Your task to perform on an android device: Open battery settings Image 0: 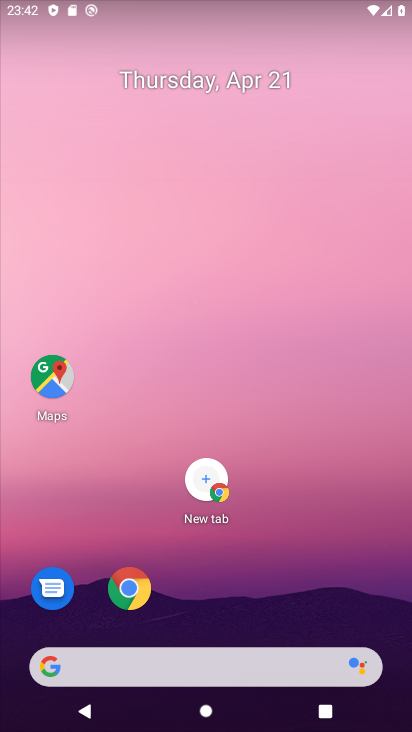
Step 0: drag from (190, 612) to (305, 180)
Your task to perform on an android device: Open battery settings Image 1: 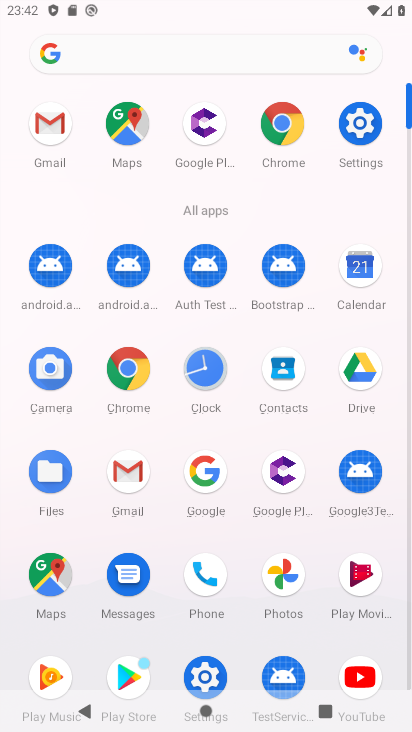
Step 1: click (362, 149)
Your task to perform on an android device: Open battery settings Image 2: 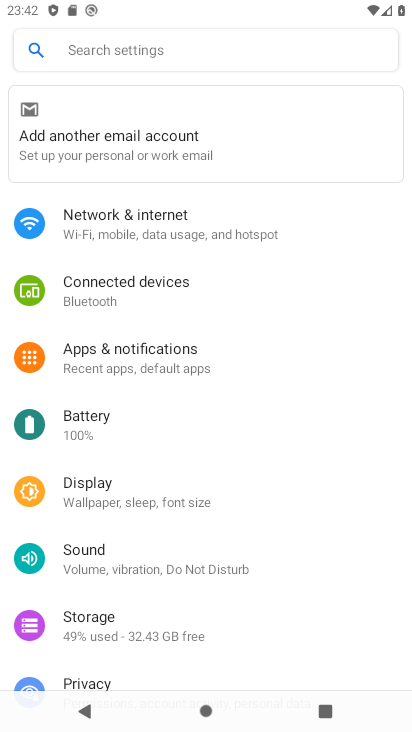
Step 2: click (114, 436)
Your task to perform on an android device: Open battery settings Image 3: 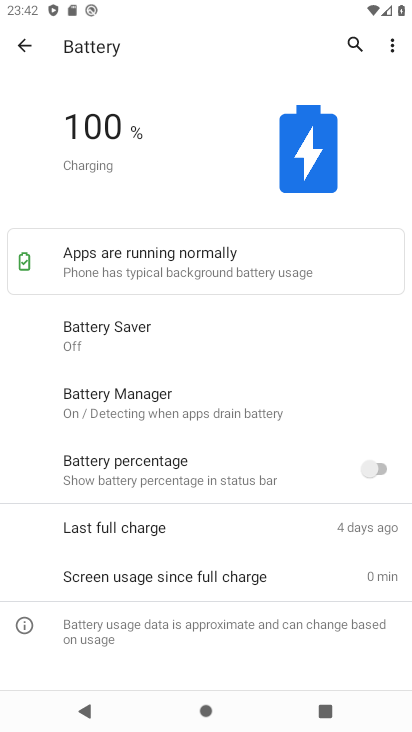
Step 3: task complete